Your task to perform on an android device: Go to accessibility settings Image 0: 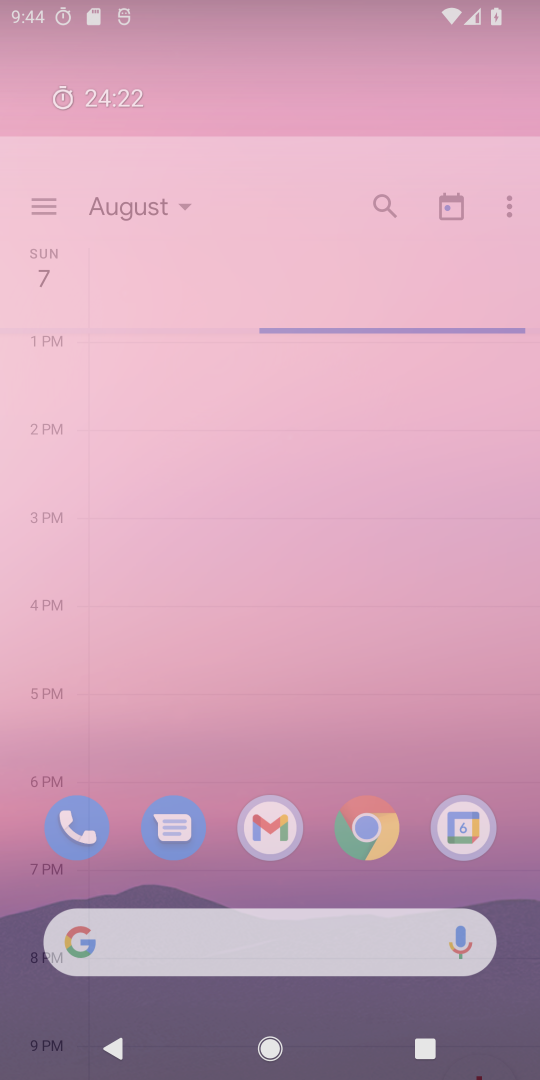
Step 0: press home button
Your task to perform on an android device: Go to accessibility settings Image 1: 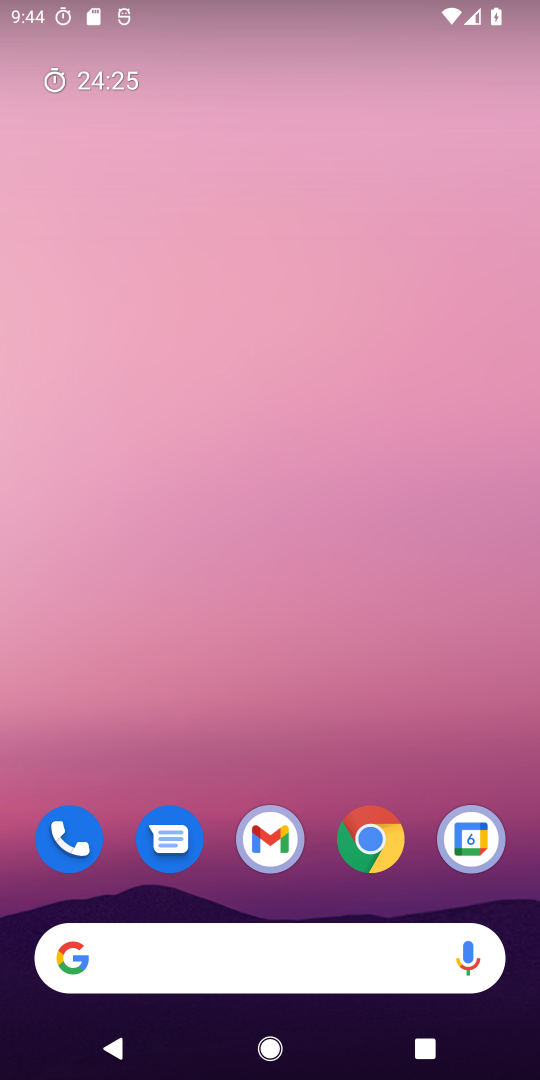
Step 1: drag from (320, 888) to (410, 31)
Your task to perform on an android device: Go to accessibility settings Image 2: 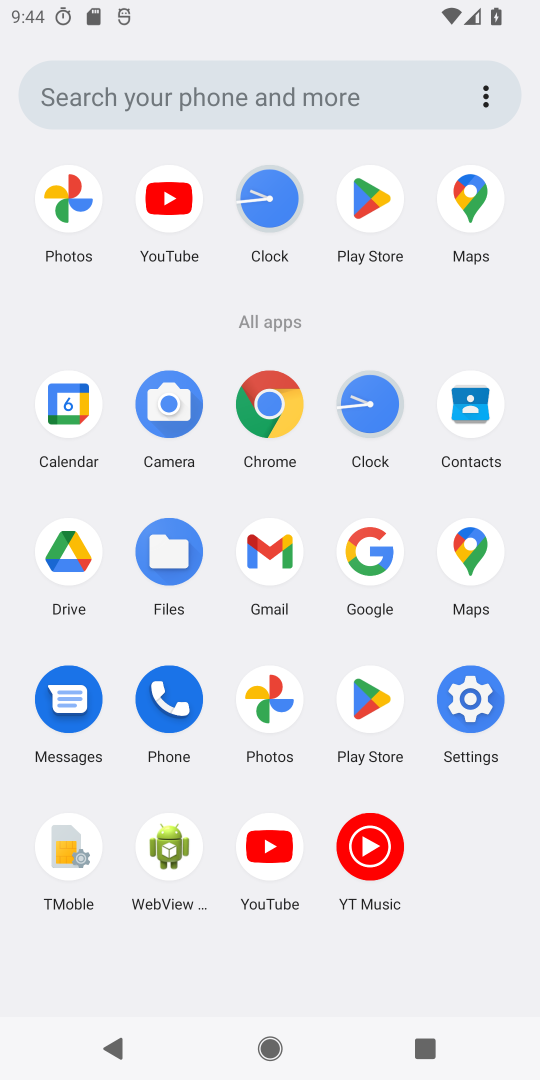
Step 2: click (472, 688)
Your task to perform on an android device: Go to accessibility settings Image 3: 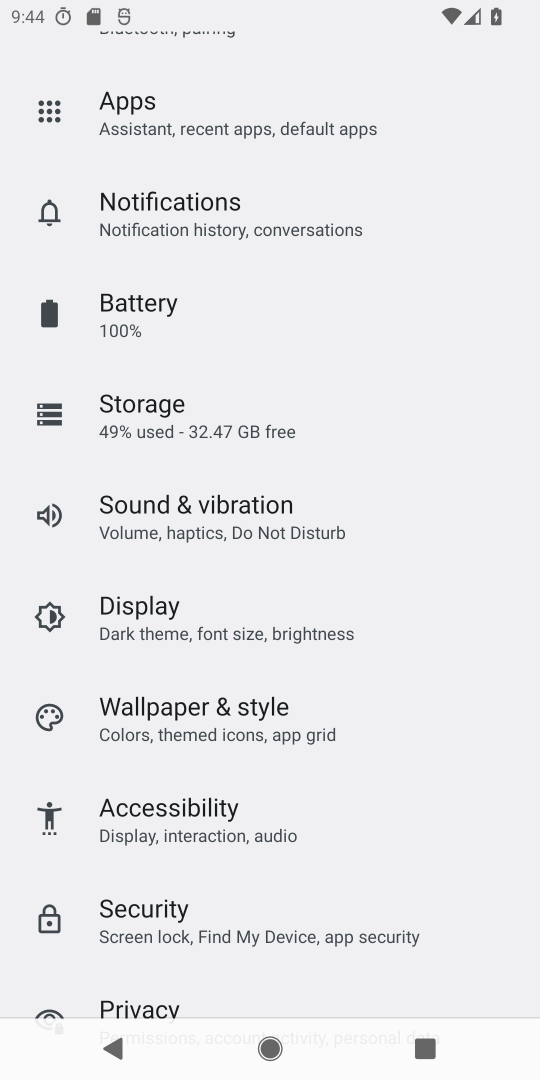
Step 3: click (245, 802)
Your task to perform on an android device: Go to accessibility settings Image 4: 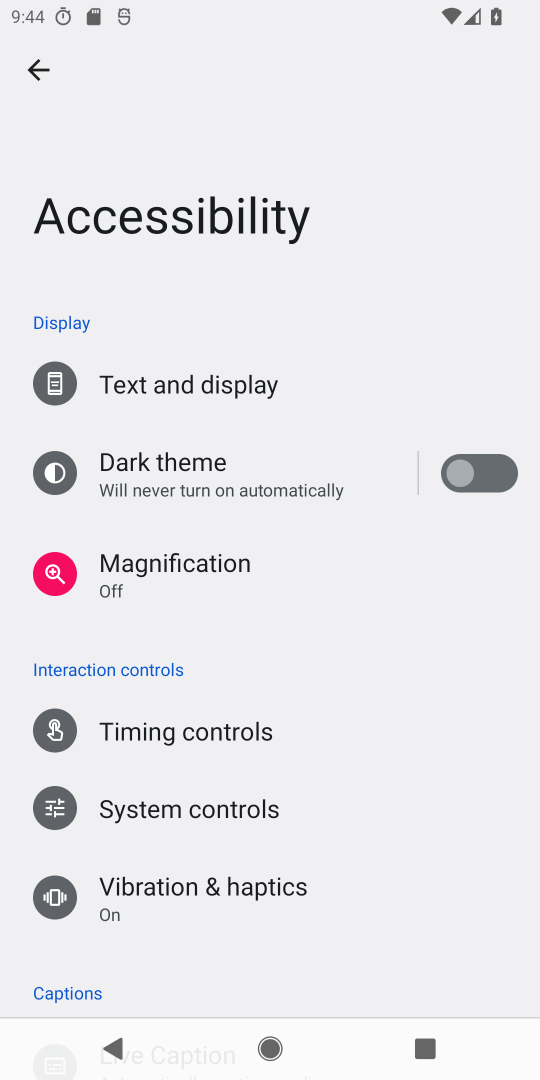
Step 4: task complete